Your task to perform on an android device: Open Chrome and go to the settings page Image 0: 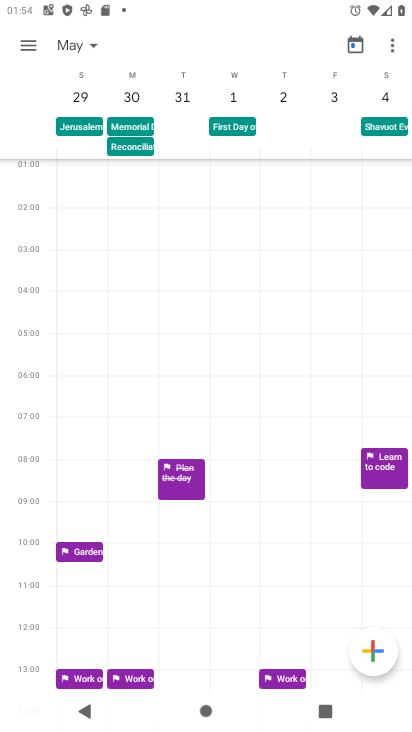
Step 0: press home button
Your task to perform on an android device: Open Chrome and go to the settings page Image 1: 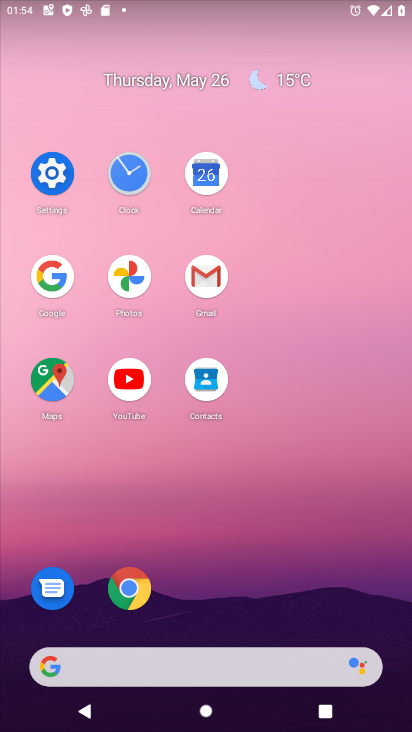
Step 1: click (143, 600)
Your task to perform on an android device: Open Chrome and go to the settings page Image 2: 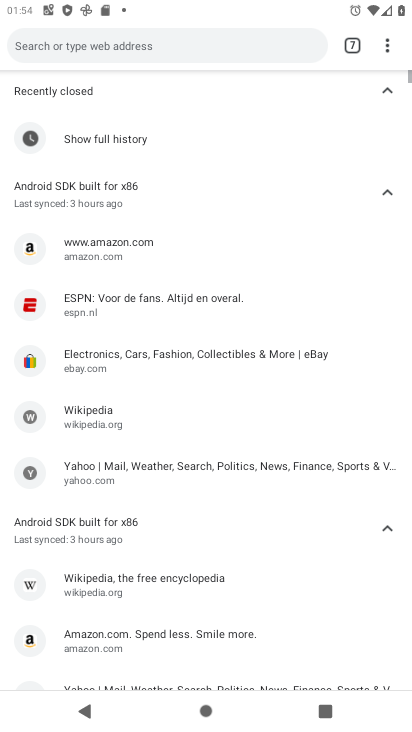
Step 2: click (386, 41)
Your task to perform on an android device: Open Chrome and go to the settings page Image 3: 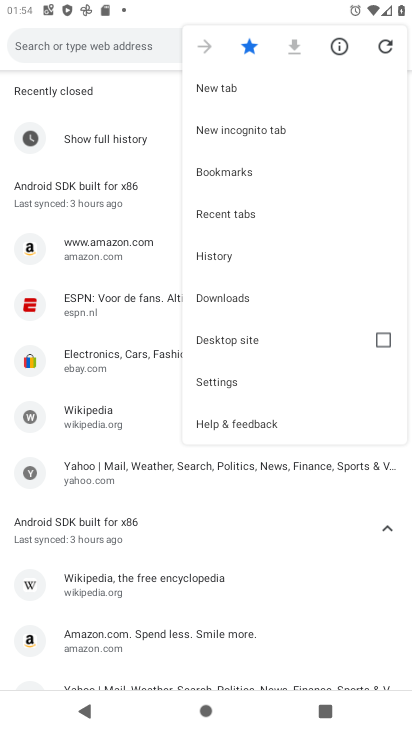
Step 3: click (214, 371)
Your task to perform on an android device: Open Chrome and go to the settings page Image 4: 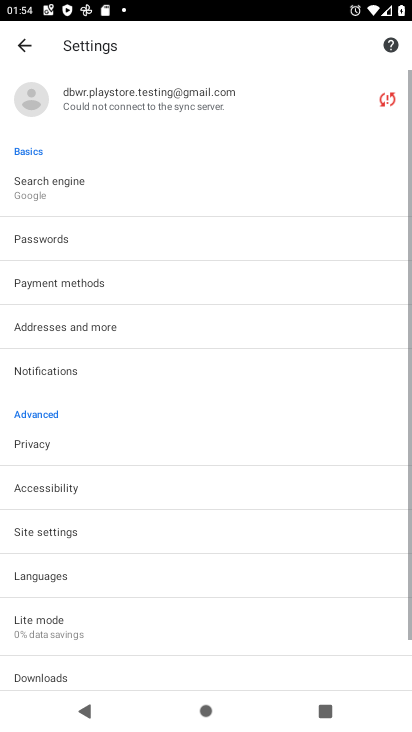
Step 4: task complete